Your task to perform on an android device: toggle airplane mode Image 0: 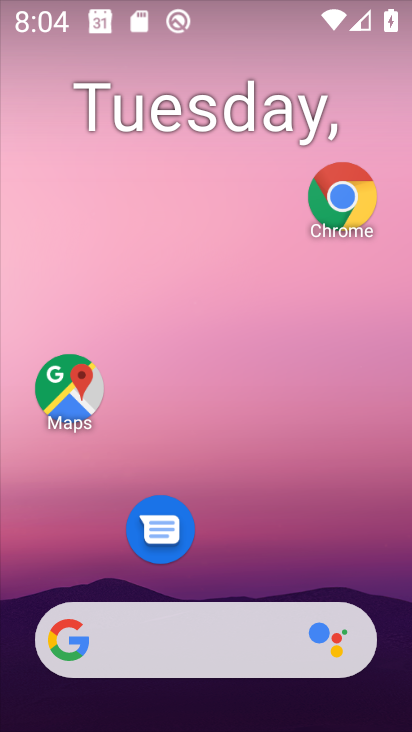
Step 0: drag from (246, 581) to (239, 1)
Your task to perform on an android device: toggle airplane mode Image 1: 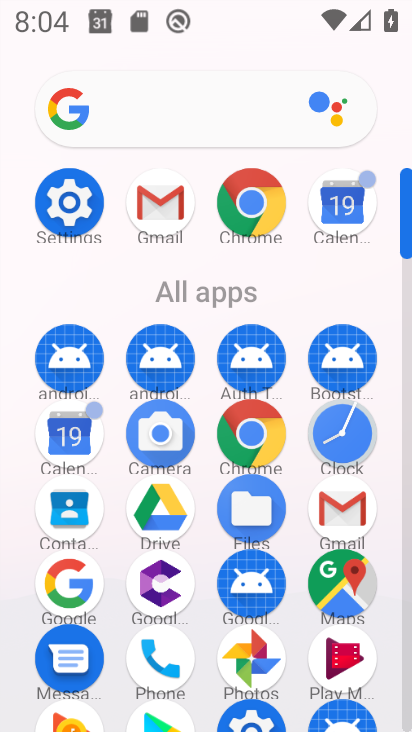
Step 1: click (58, 201)
Your task to perform on an android device: toggle airplane mode Image 2: 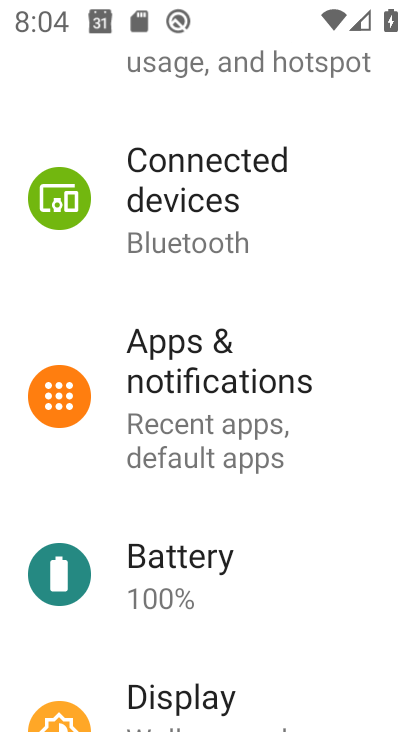
Step 2: drag from (256, 226) to (212, 670)
Your task to perform on an android device: toggle airplane mode Image 3: 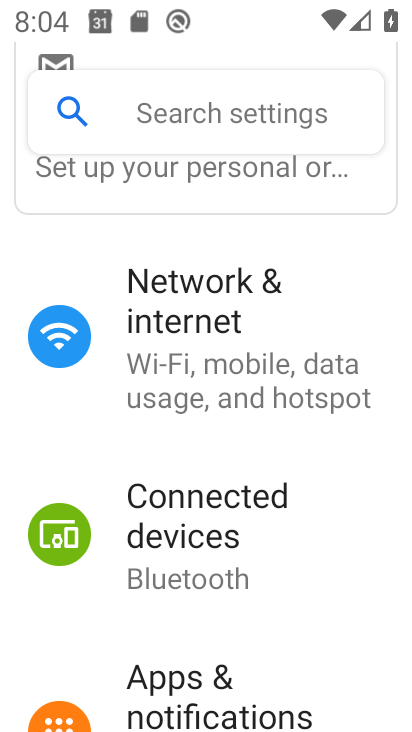
Step 3: click (203, 349)
Your task to perform on an android device: toggle airplane mode Image 4: 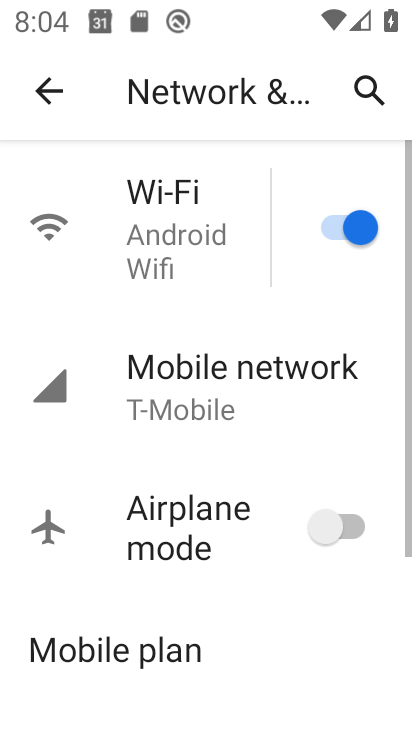
Step 4: click (345, 529)
Your task to perform on an android device: toggle airplane mode Image 5: 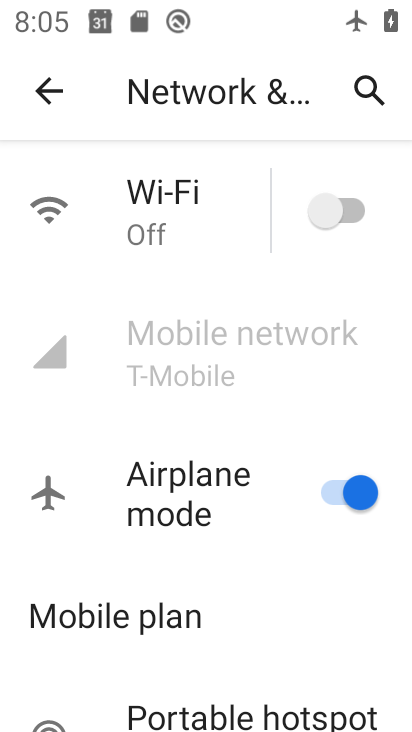
Step 5: task complete